Your task to perform on an android device: check storage Image 0: 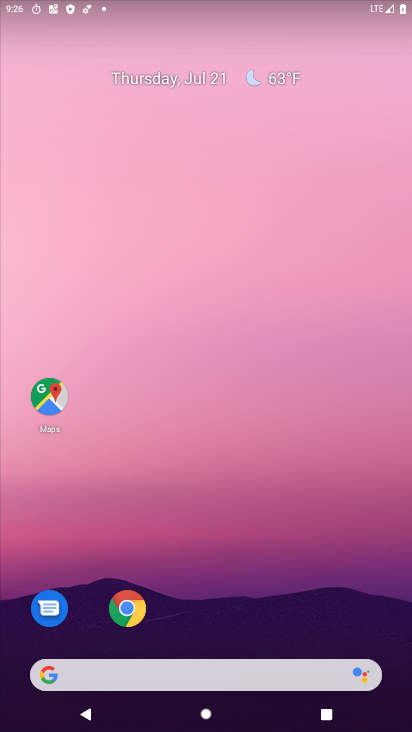
Step 0: drag from (191, 606) to (298, 103)
Your task to perform on an android device: check storage Image 1: 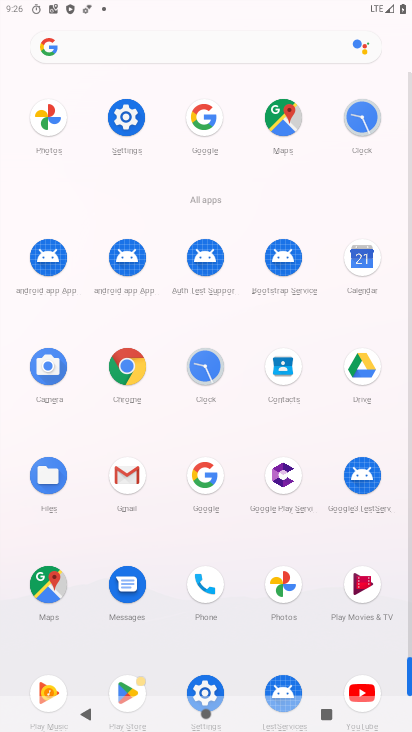
Step 1: click (142, 136)
Your task to perform on an android device: check storage Image 2: 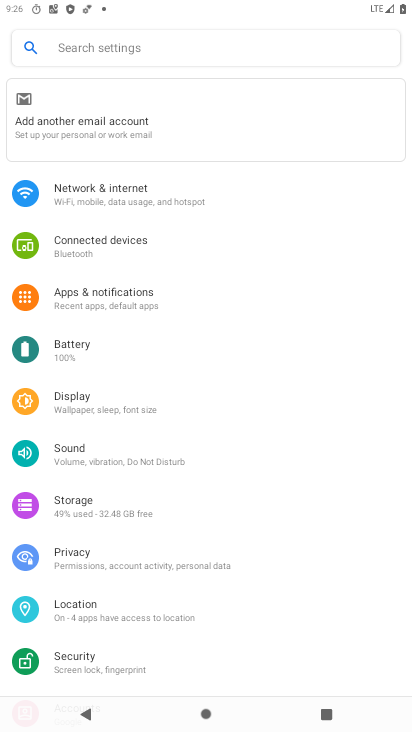
Step 2: click (94, 515)
Your task to perform on an android device: check storage Image 3: 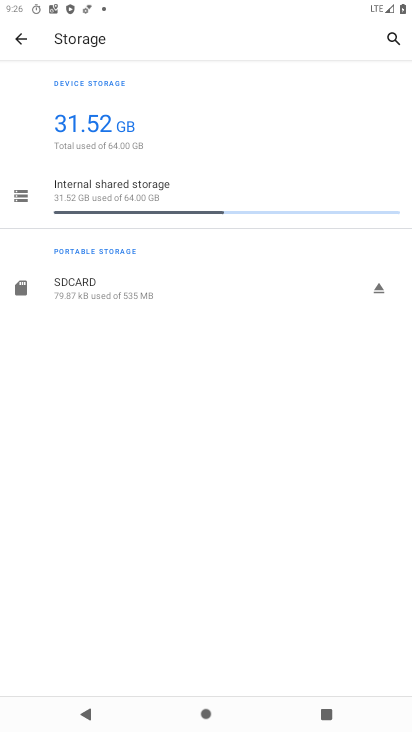
Step 3: click (111, 193)
Your task to perform on an android device: check storage Image 4: 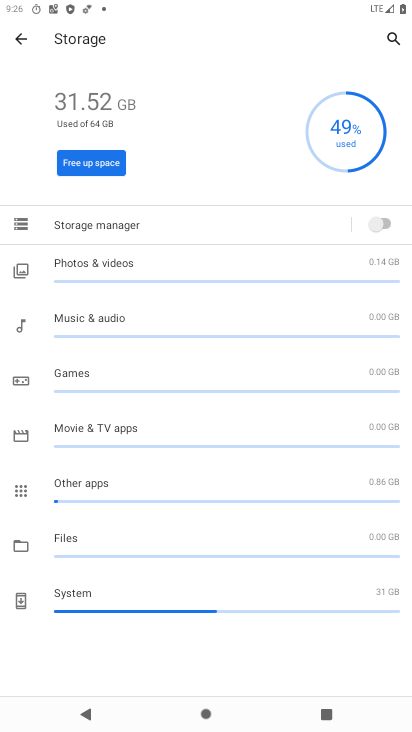
Step 4: task complete